Your task to perform on an android device: Go to battery settings Image 0: 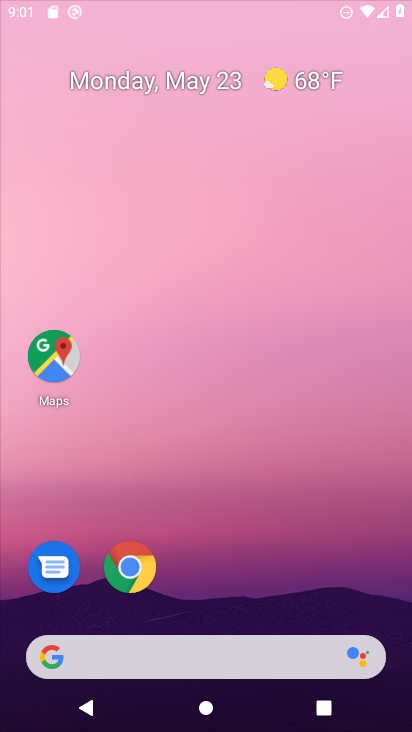
Step 0: click (277, 152)
Your task to perform on an android device: Go to battery settings Image 1: 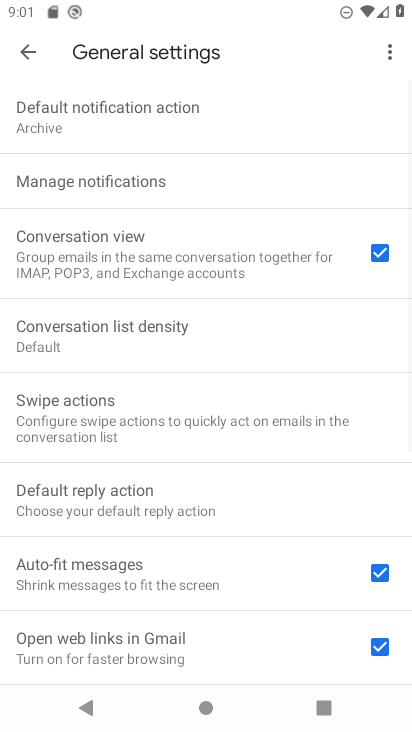
Step 1: press home button
Your task to perform on an android device: Go to battery settings Image 2: 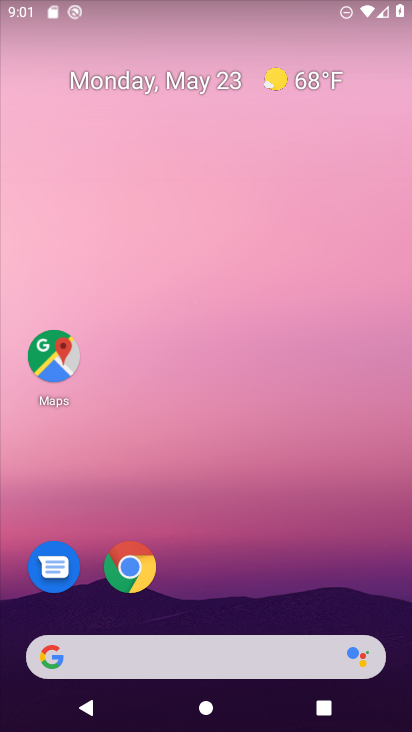
Step 2: drag from (181, 610) to (282, 53)
Your task to perform on an android device: Go to battery settings Image 3: 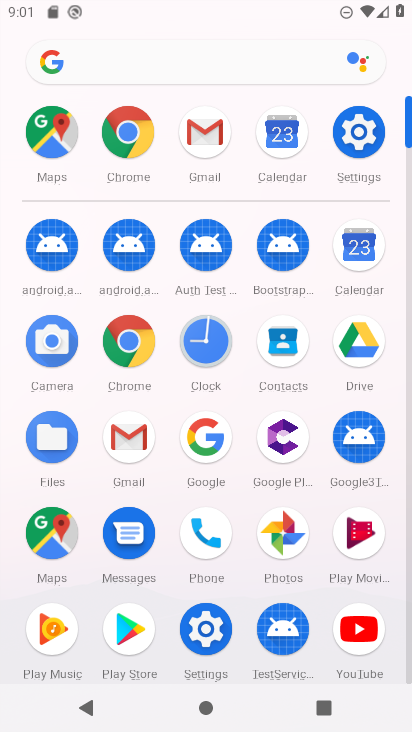
Step 3: click (192, 617)
Your task to perform on an android device: Go to battery settings Image 4: 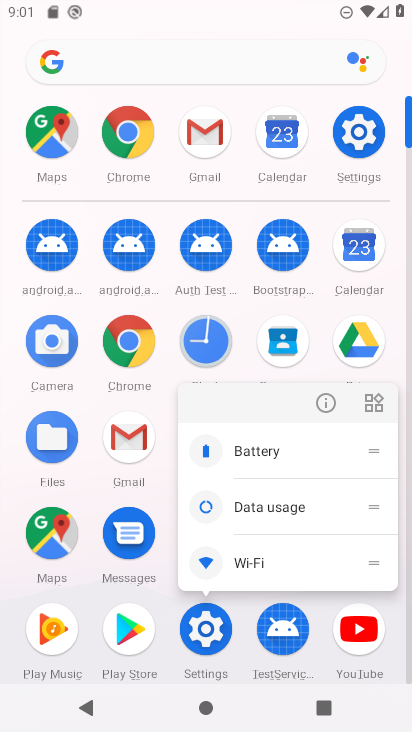
Step 4: click (322, 409)
Your task to perform on an android device: Go to battery settings Image 5: 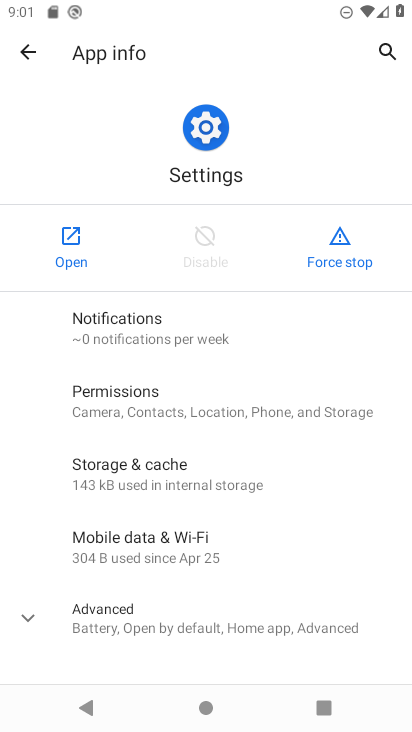
Step 5: click (71, 221)
Your task to perform on an android device: Go to battery settings Image 6: 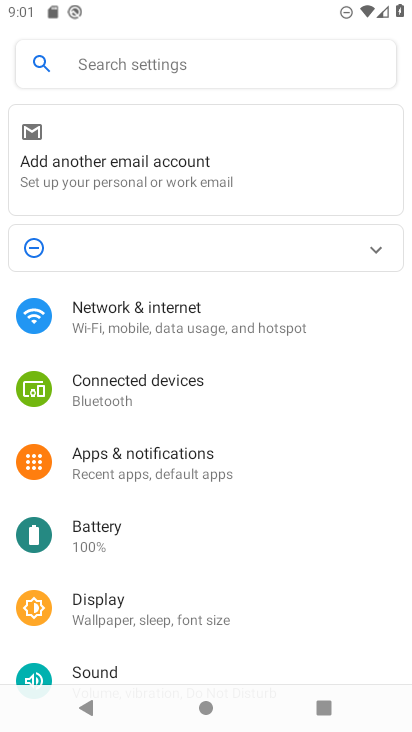
Step 6: drag from (254, 563) to (324, 238)
Your task to perform on an android device: Go to battery settings Image 7: 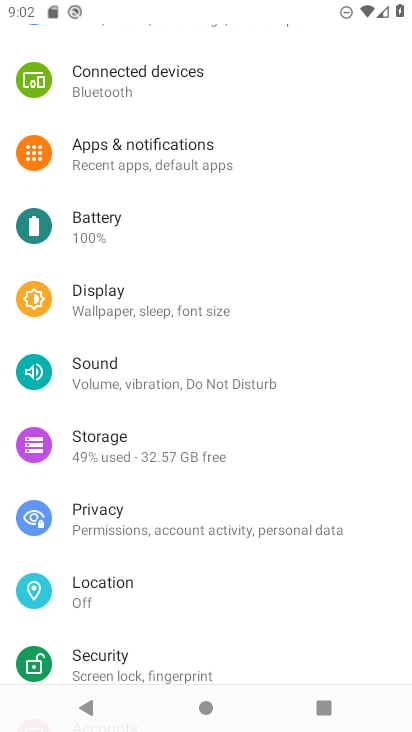
Step 7: click (167, 215)
Your task to perform on an android device: Go to battery settings Image 8: 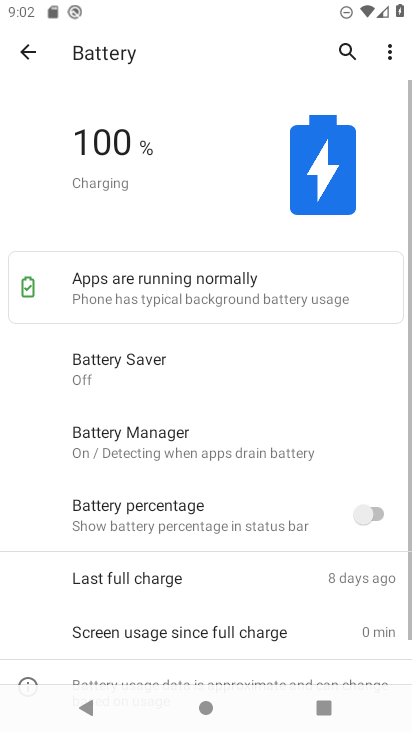
Step 8: task complete